Your task to perform on an android device: turn off notifications settings in the gmail app Image 0: 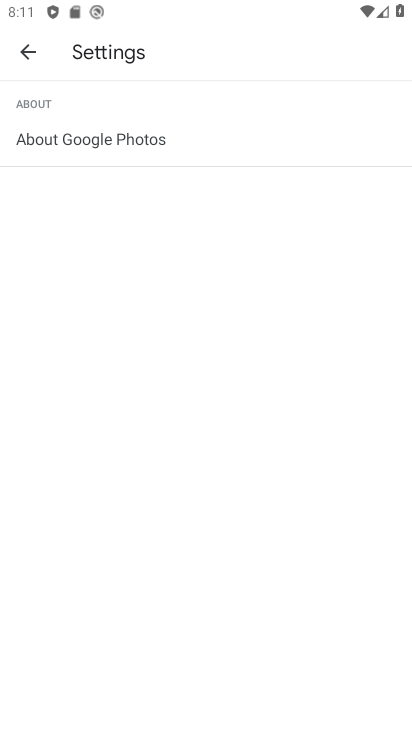
Step 0: press home button
Your task to perform on an android device: turn off notifications settings in the gmail app Image 1: 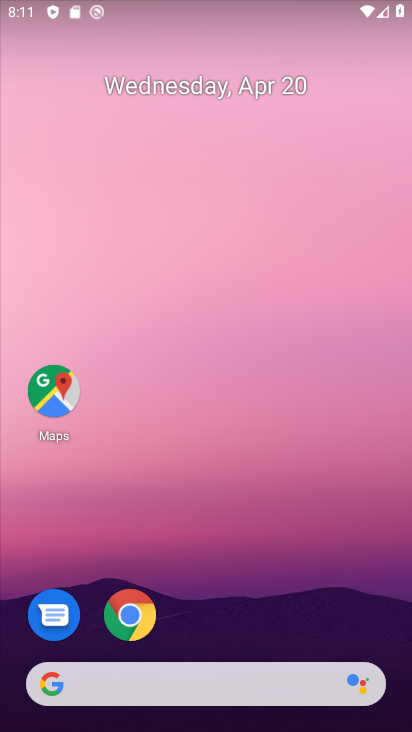
Step 1: drag from (238, 597) to (257, 132)
Your task to perform on an android device: turn off notifications settings in the gmail app Image 2: 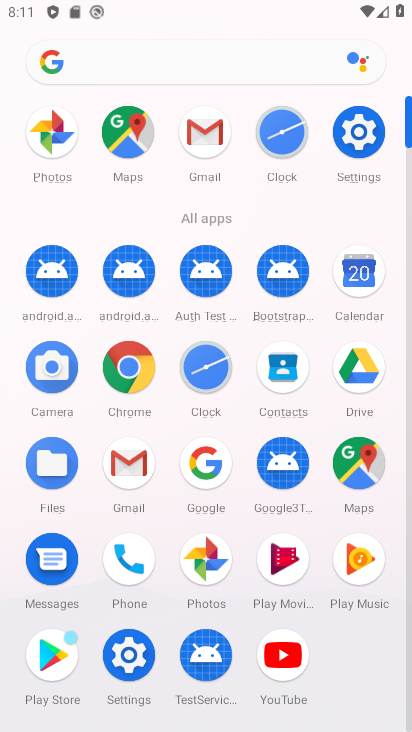
Step 2: click (201, 138)
Your task to perform on an android device: turn off notifications settings in the gmail app Image 3: 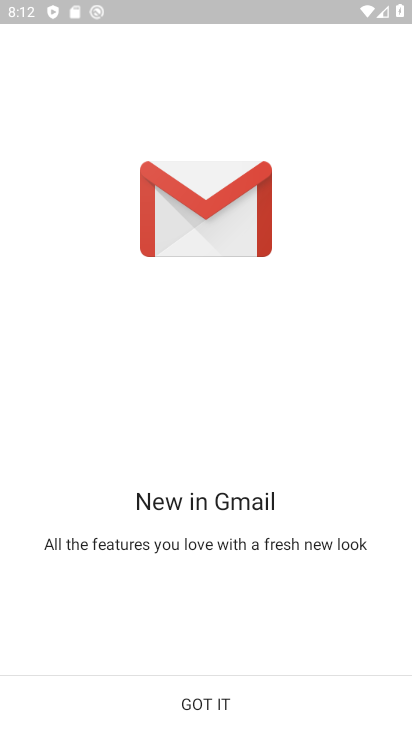
Step 3: click (197, 721)
Your task to perform on an android device: turn off notifications settings in the gmail app Image 4: 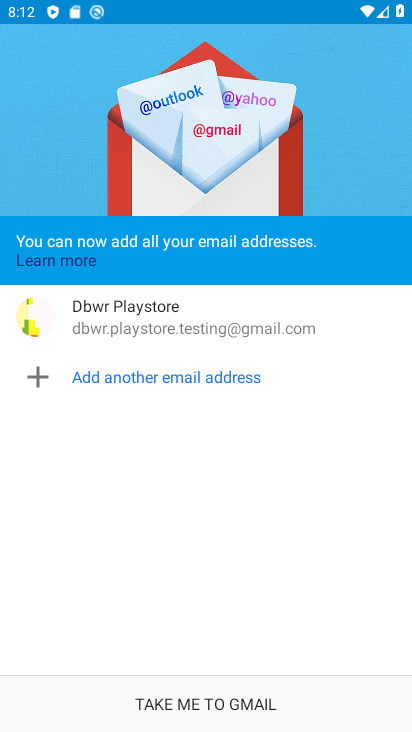
Step 4: click (201, 704)
Your task to perform on an android device: turn off notifications settings in the gmail app Image 5: 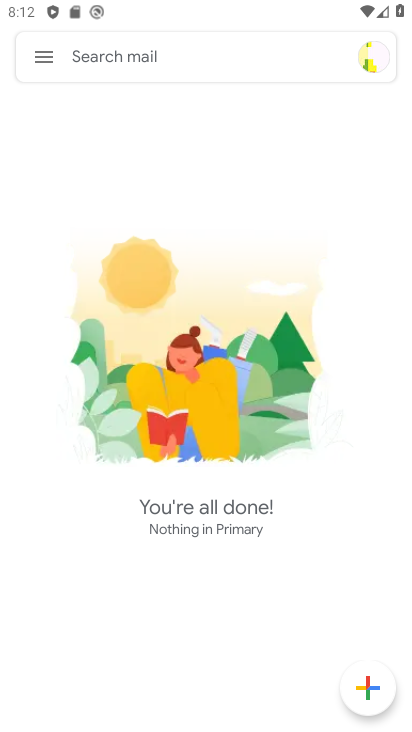
Step 5: click (51, 61)
Your task to perform on an android device: turn off notifications settings in the gmail app Image 6: 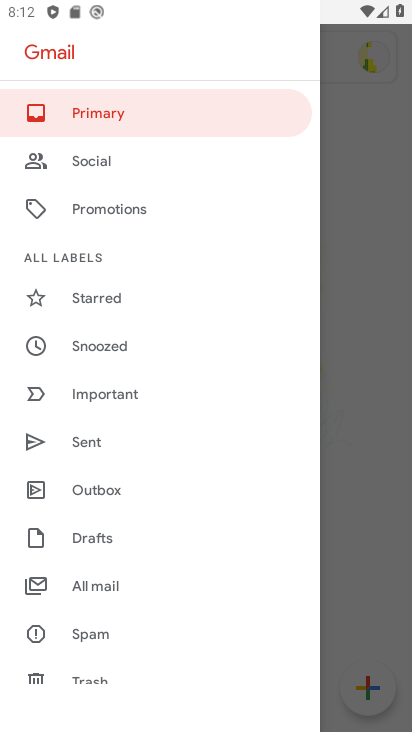
Step 6: drag from (158, 616) to (170, 132)
Your task to perform on an android device: turn off notifications settings in the gmail app Image 7: 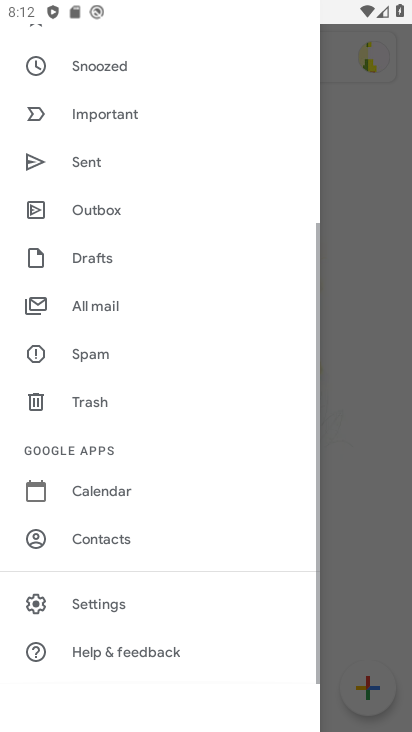
Step 7: click (104, 604)
Your task to perform on an android device: turn off notifications settings in the gmail app Image 8: 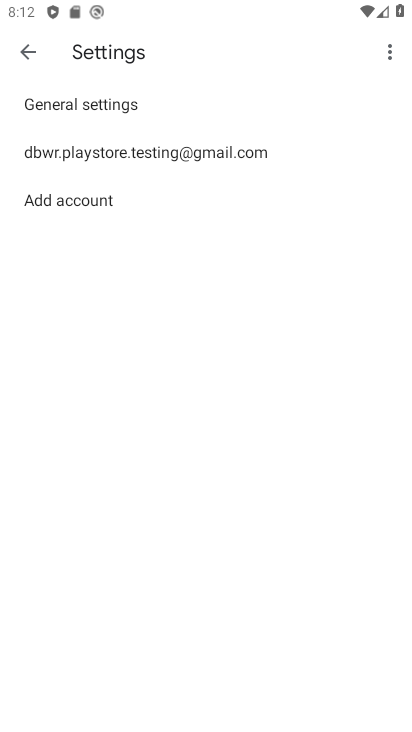
Step 8: click (107, 147)
Your task to perform on an android device: turn off notifications settings in the gmail app Image 9: 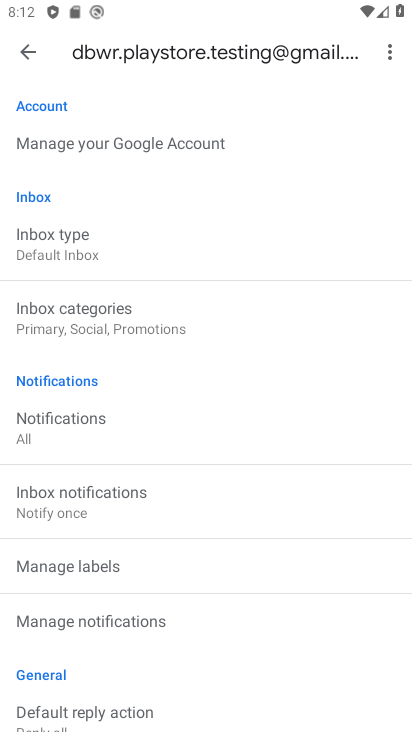
Step 9: click (29, 431)
Your task to perform on an android device: turn off notifications settings in the gmail app Image 10: 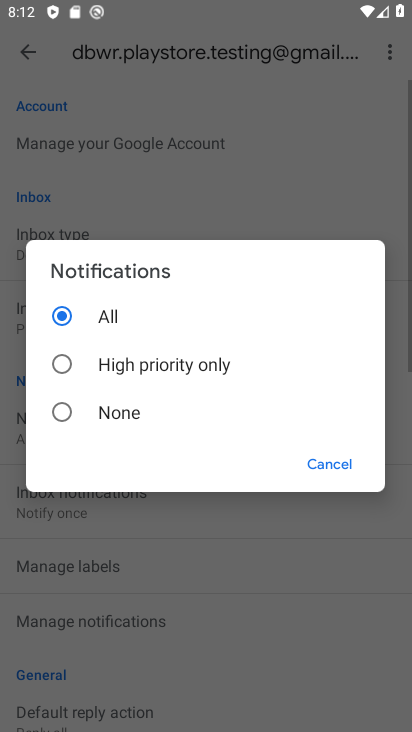
Step 10: click (67, 411)
Your task to perform on an android device: turn off notifications settings in the gmail app Image 11: 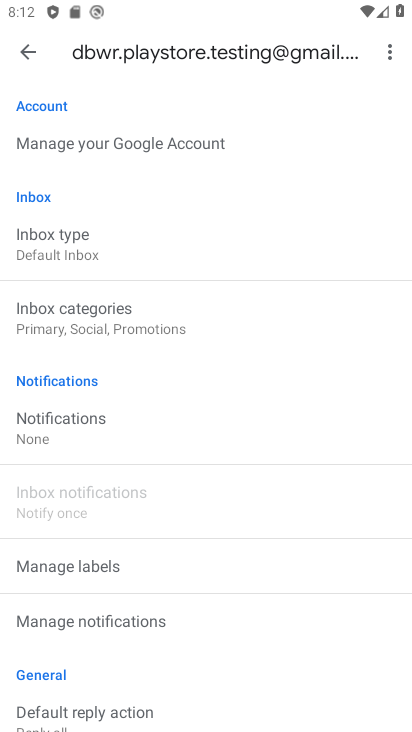
Step 11: task complete